Your task to perform on an android device: turn on sleep mode Image 0: 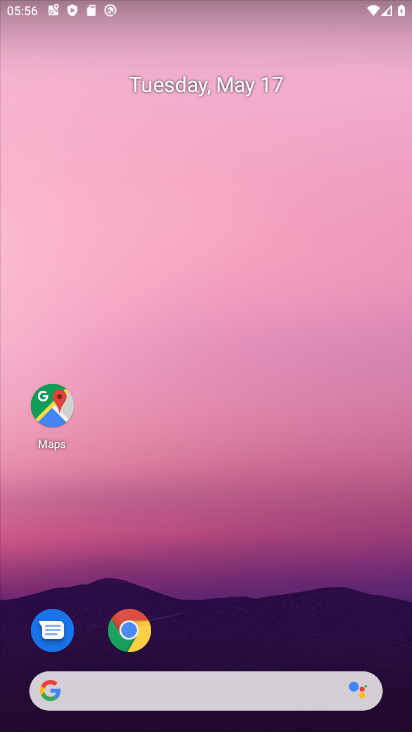
Step 0: drag from (270, 583) to (316, 92)
Your task to perform on an android device: turn on sleep mode Image 1: 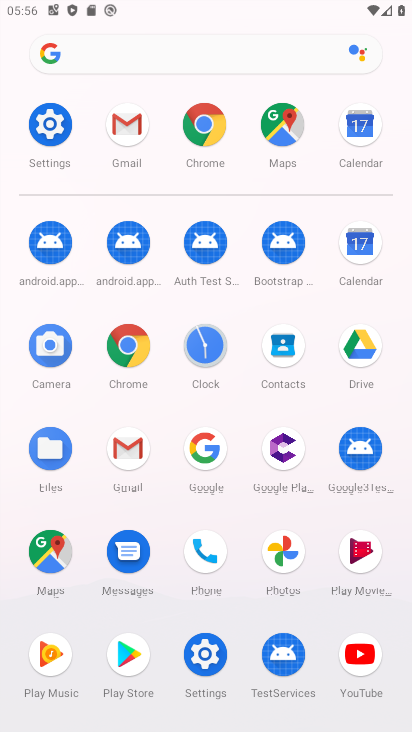
Step 1: click (58, 109)
Your task to perform on an android device: turn on sleep mode Image 2: 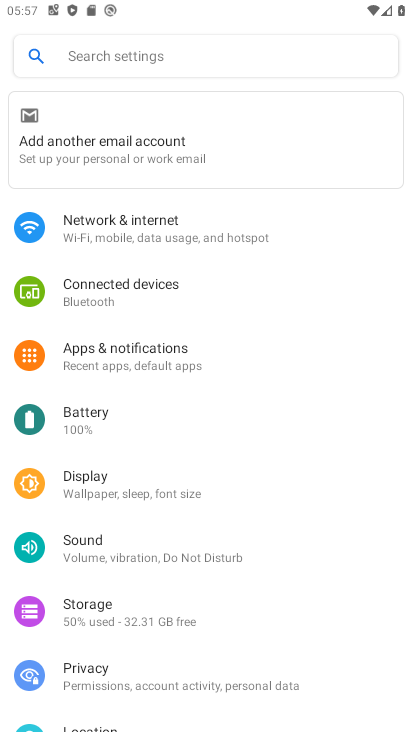
Step 2: task complete